Your task to perform on an android device: Search for pizza restaurants on Maps Image 0: 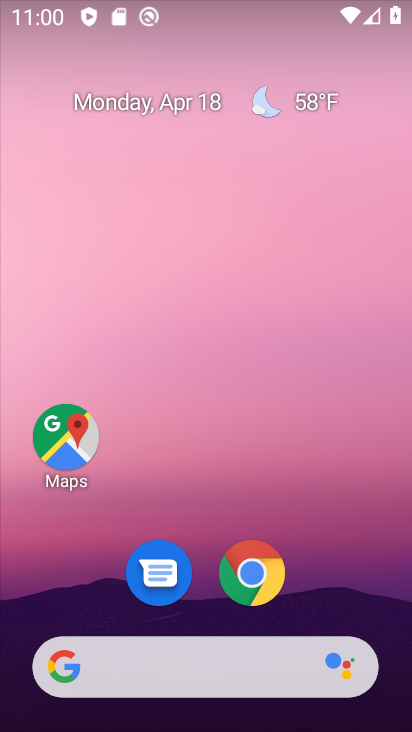
Step 0: drag from (338, 569) to (312, 102)
Your task to perform on an android device: Search for pizza restaurants on Maps Image 1: 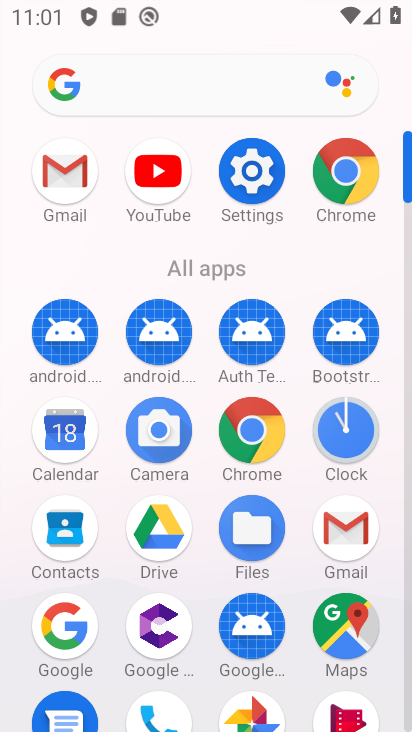
Step 1: click (342, 625)
Your task to perform on an android device: Search for pizza restaurants on Maps Image 2: 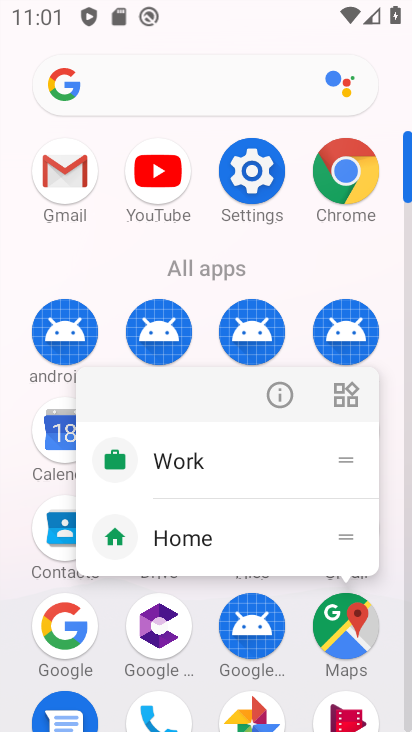
Step 2: click (344, 616)
Your task to perform on an android device: Search for pizza restaurants on Maps Image 3: 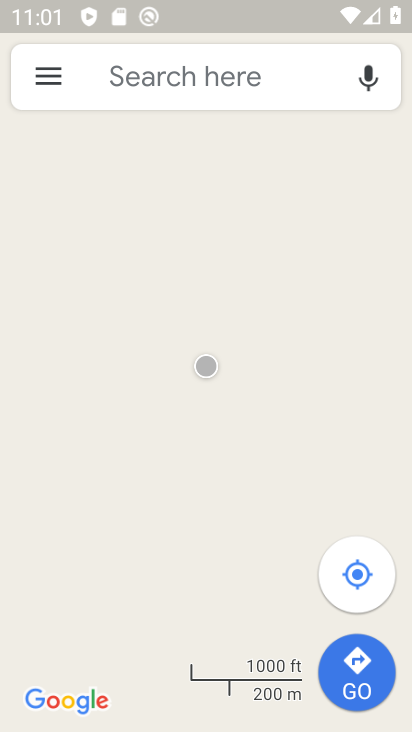
Step 3: click (190, 83)
Your task to perform on an android device: Search for pizza restaurants on Maps Image 4: 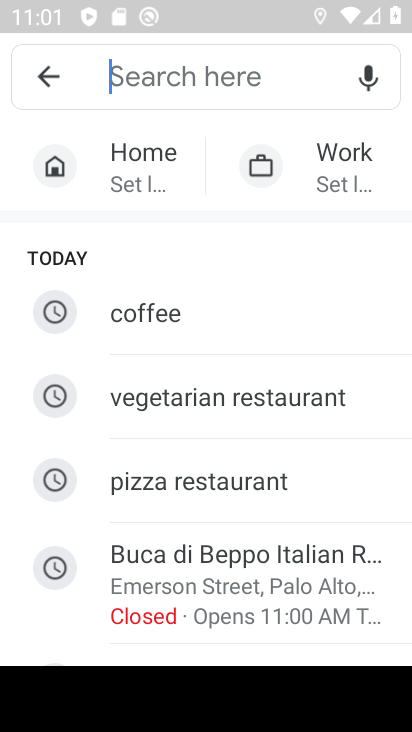
Step 4: type "pizza restaurants"
Your task to perform on an android device: Search for pizza restaurants on Maps Image 5: 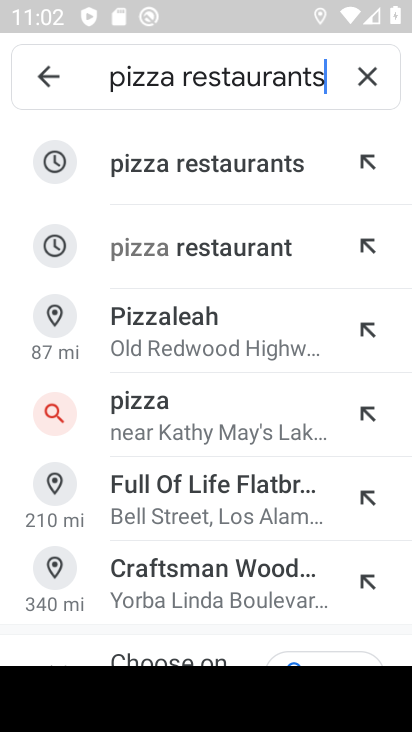
Step 5: click (256, 161)
Your task to perform on an android device: Search for pizza restaurants on Maps Image 6: 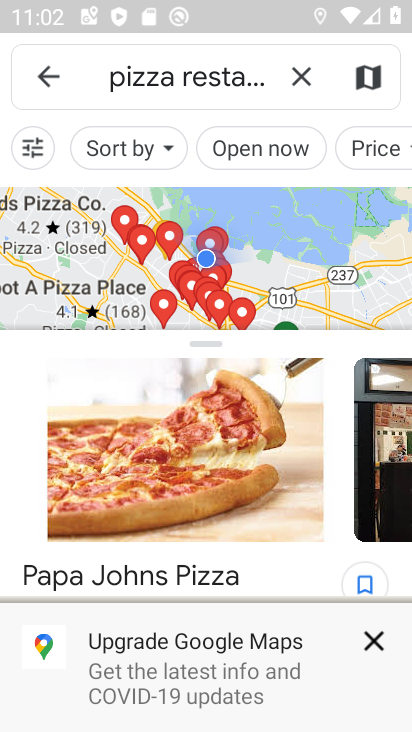
Step 6: task complete